Your task to perform on an android device: set the stopwatch Image 0: 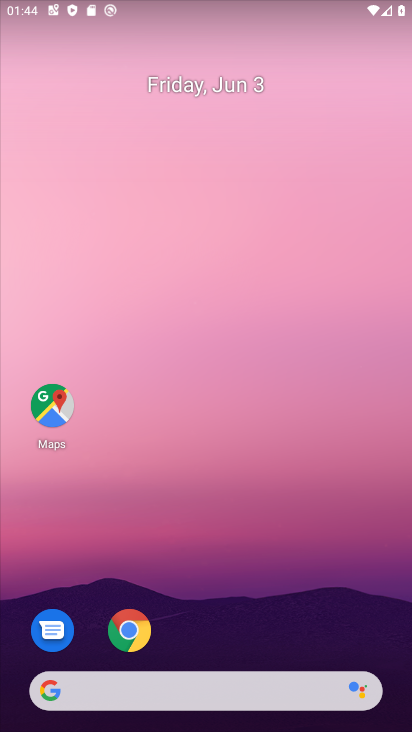
Step 0: drag from (249, 640) to (249, 142)
Your task to perform on an android device: set the stopwatch Image 1: 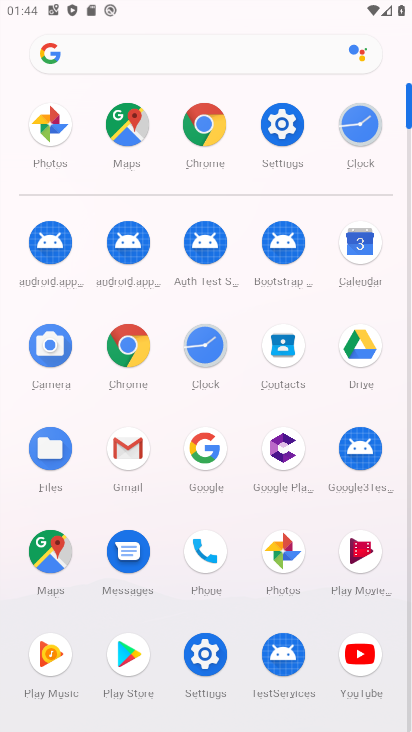
Step 1: click (366, 131)
Your task to perform on an android device: set the stopwatch Image 2: 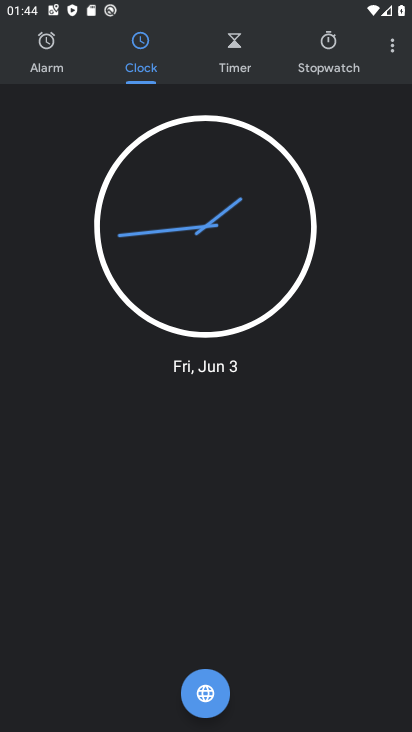
Step 2: click (334, 69)
Your task to perform on an android device: set the stopwatch Image 3: 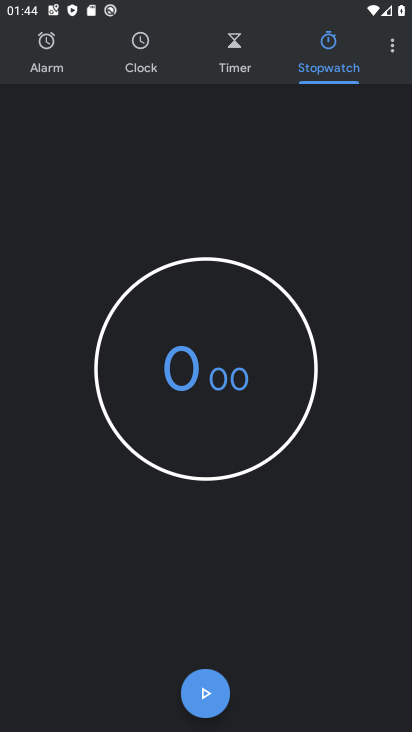
Step 3: click (203, 687)
Your task to perform on an android device: set the stopwatch Image 4: 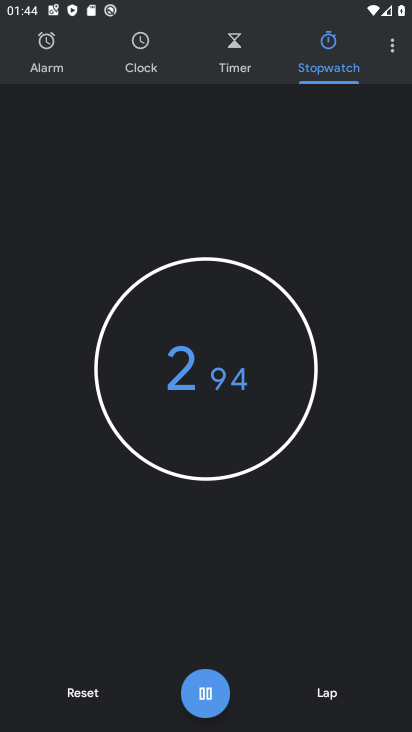
Step 4: task complete